Your task to perform on an android device: Check the news Image 0: 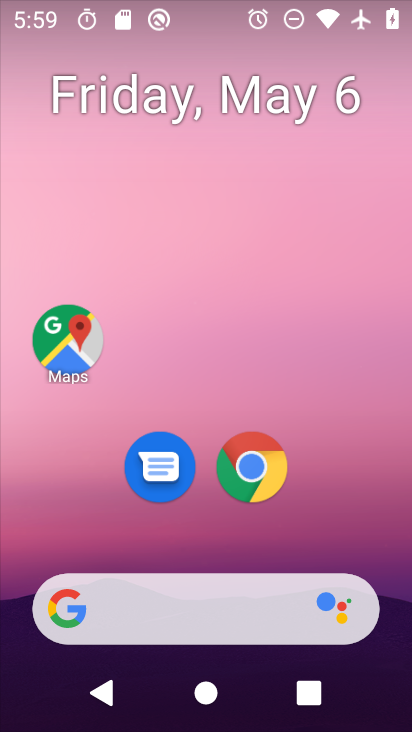
Step 0: drag from (315, 298) to (312, 135)
Your task to perform on an android device: Check the news Image 1: 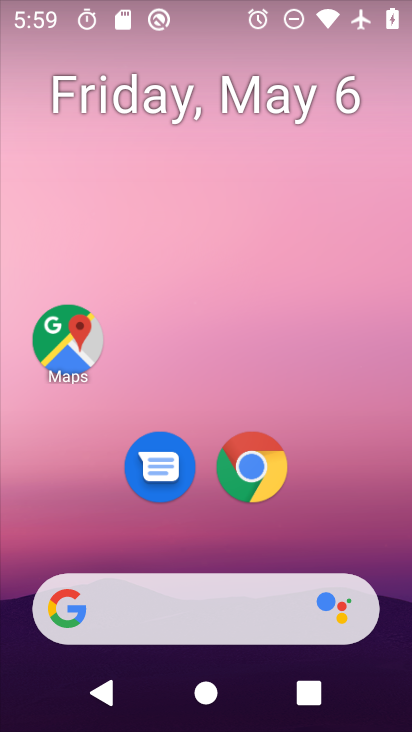
Step 1: drag from (239, 570) to (287, 152)
Your task to perform on an android device: Check the news Image 2: 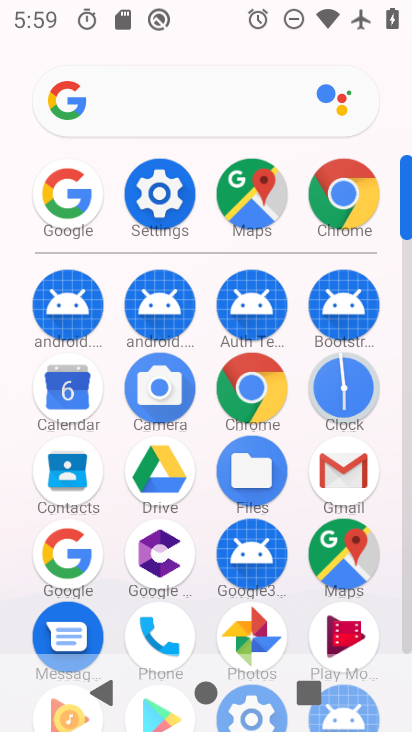
Step 2: click (55, 542)
Your task to perform on an android device: Check the news Image 3: 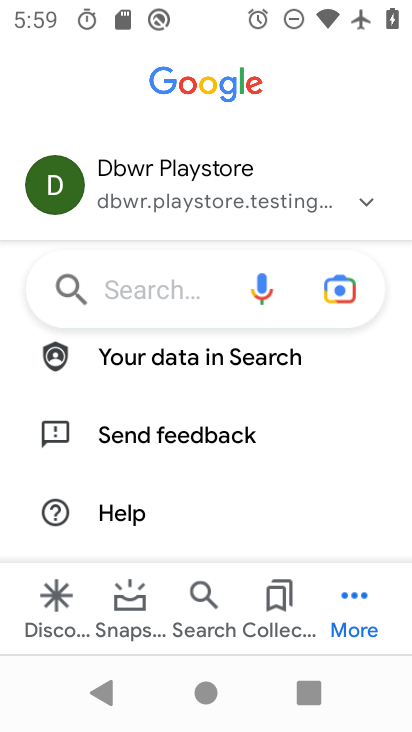
Step 3: press back button
Your task to perform on an android device: Check the news Image 4: 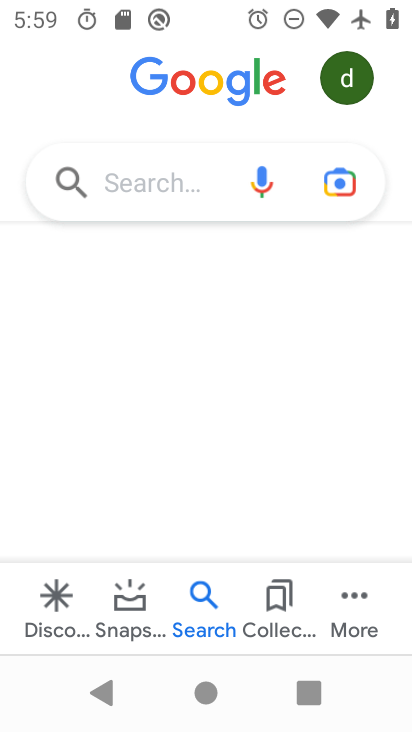
Step 4: click (144, 194)
Your task to perform on an android device: Check the news Image 5: 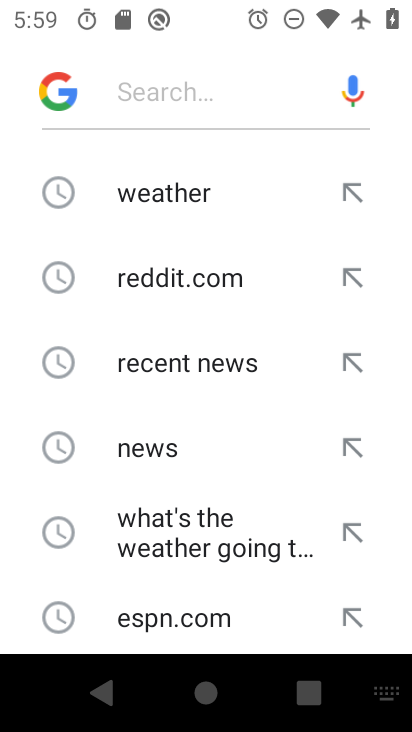
Step 5: click (155, 435)
Your task to perform on an android device: Check the news Image 6: 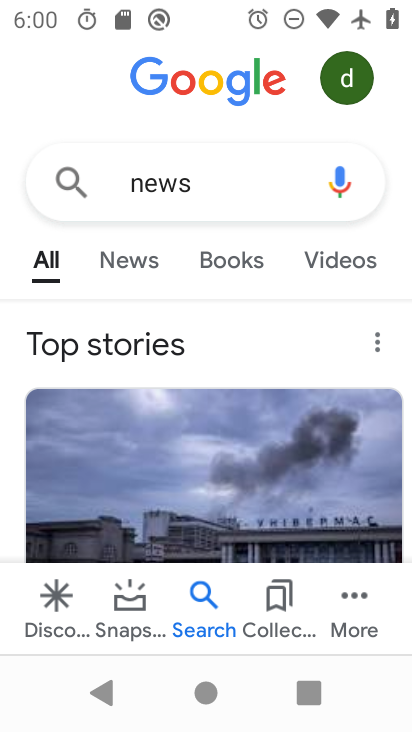
Step 6: task complete